Your task to perform on an android device: Open calendar and show me the second week of next month Image 0: 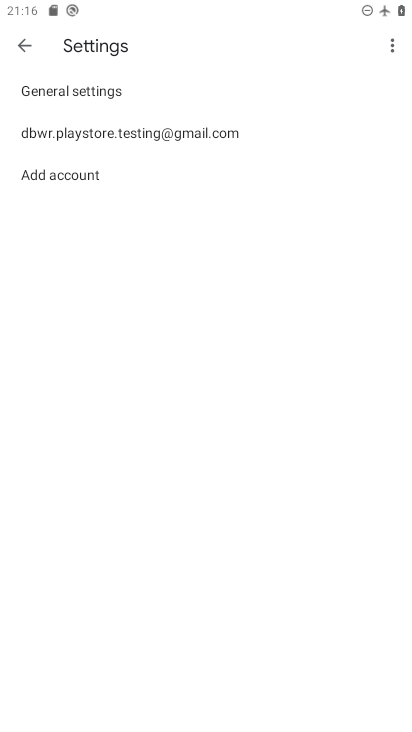
Step 0: press home button
Your task to perform on an android device: Open calendar and show me the second week of next month Image 1: 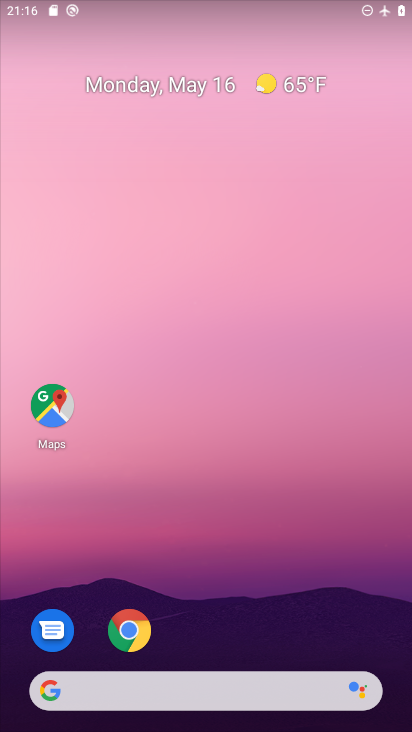
Step 1: drag from (230, 653) to (233, 222)
Your task to perform on an android device: Open calendar and show me the second week of next month Image 2: 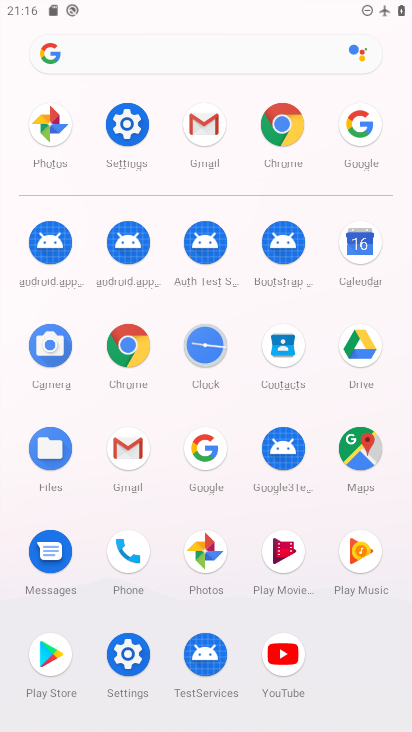
Step 2: click (354, 245)
Your task to perform on an android device: Open calendar and show me the second week of next month Image 3: 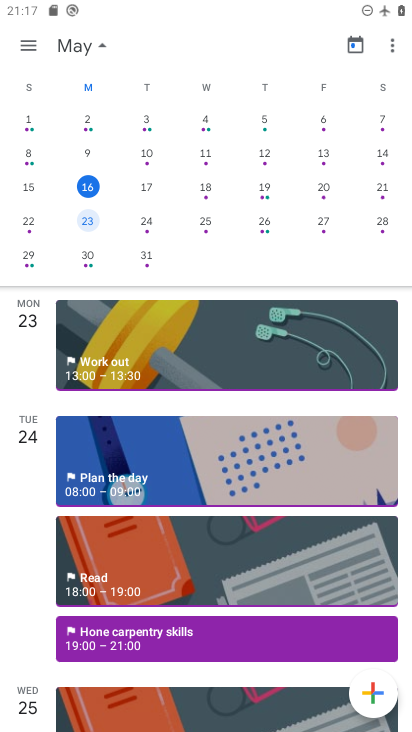
Step 3: drag from (336, 148) to (0, 192)
Your task to perform on an android device: Open calendar and show me the second week of next month Image 4: 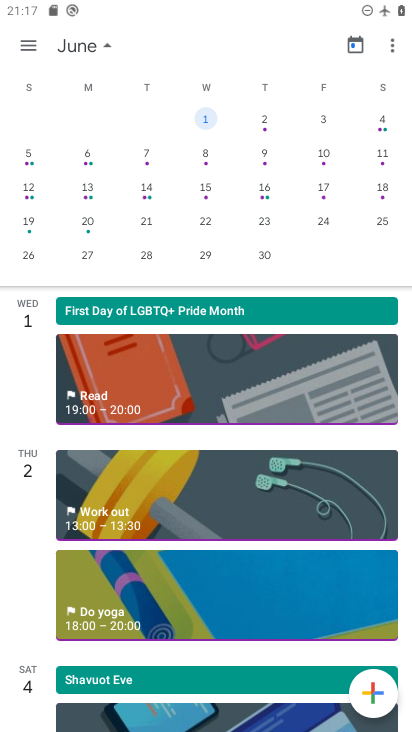
Step 4: click (89, 156)
Your task to perform on an android device: Open calendar and show me the second week of next month Image 5: 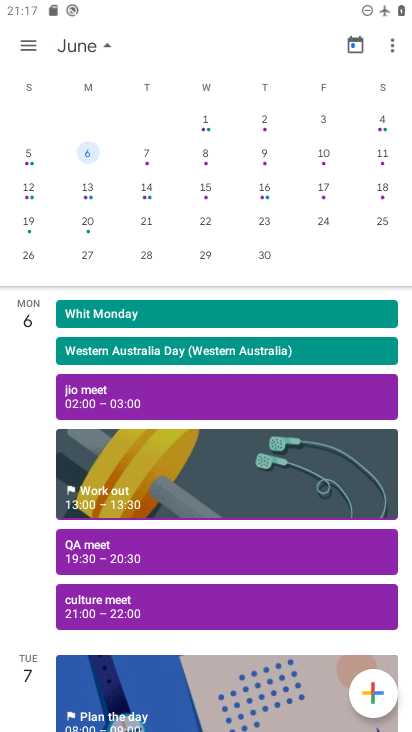
Step 5: task complete